Your task to perform on an android device: View the shopping cart on walmart.com. Image 0: 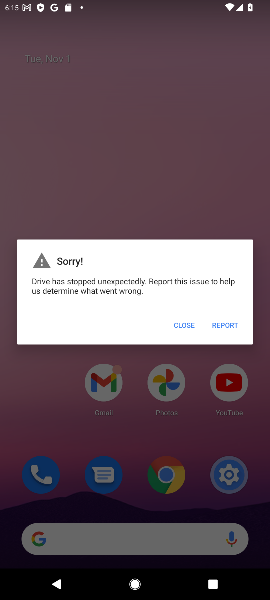
Step 0: click (180, 322)
Your task to perform on an android device: View the shopping cart on walmart.com. Image 1: 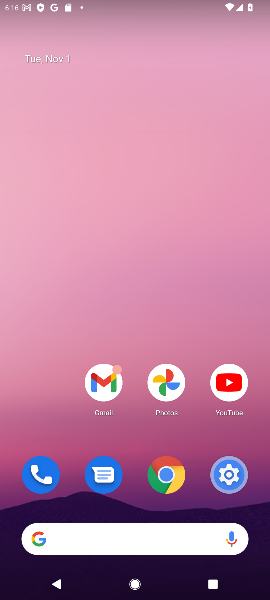
Step 1: click (121, 539)
Your task to perform on an android device: View the shopping cart on walmart.com. Image 2: 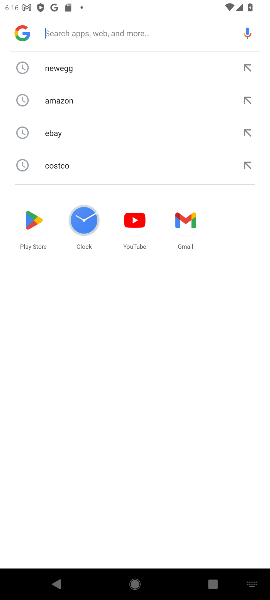
Step 2: type "walmart"
Your task to perform on an android device: View the shopping cart on walmart.com. Image 3: 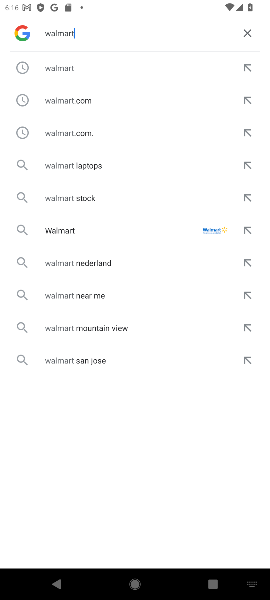
Step 3: click (61, 63)
Your task to perform on an android device: View the shopping cart on walmart.com. Image 4: 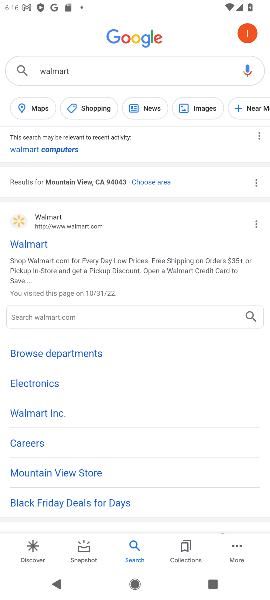
Step 4: click (32, 239)
Your task to perform on an android device: View the shopping cart on walmart.com. Image 5: 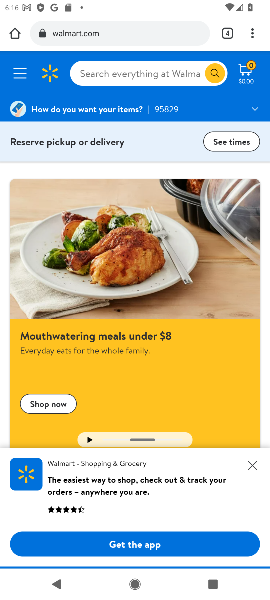
Step 5: click (253, 458)
Your task to perform on an android device: View the shopping cart on walmart.com. Image 6: 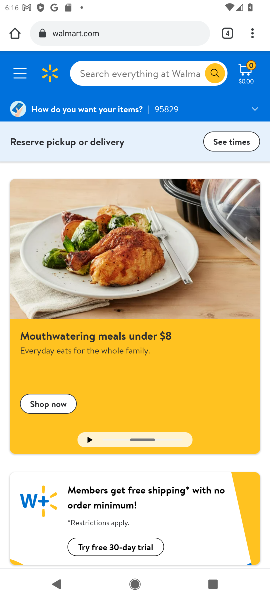
Step 6: click (245, 74)
Your task to perform on an android device: View the shopping cart on walmart.com. Image 7: 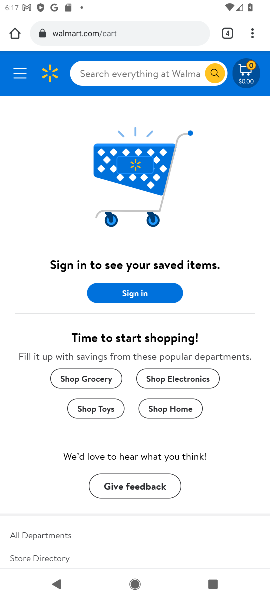
Step 7: task complete